Your task to perform on an android device: Go to Maps Image 0: 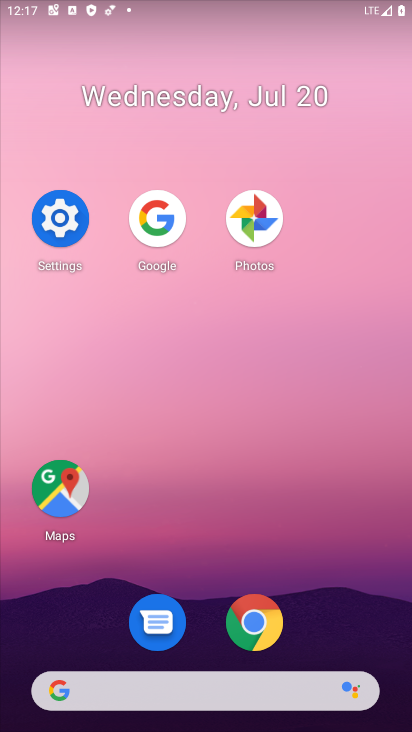
Step 0: click (77, 492)
Your task to perform on an android device: Go to Maps Image 1: 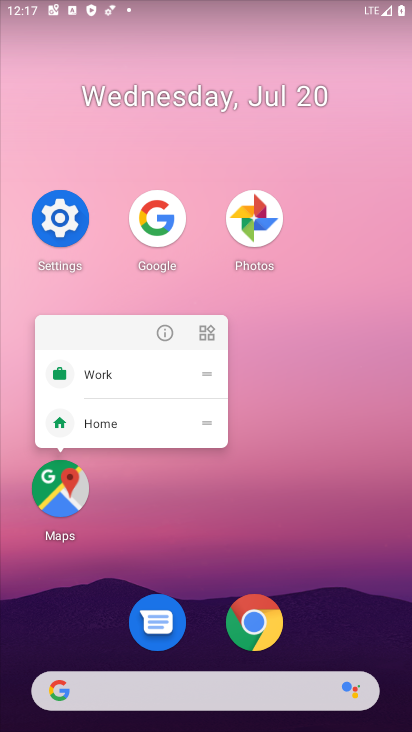
Step 1: click (64, 472)
Your task to perform on an android device: Go to Maps Image 2: 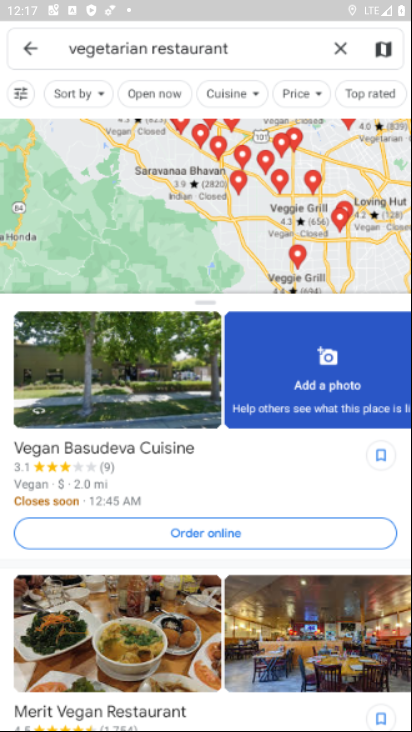
Step 2: task complete